Your task to perform on an android device: turn on priority inbox in the gmail app Image 0: 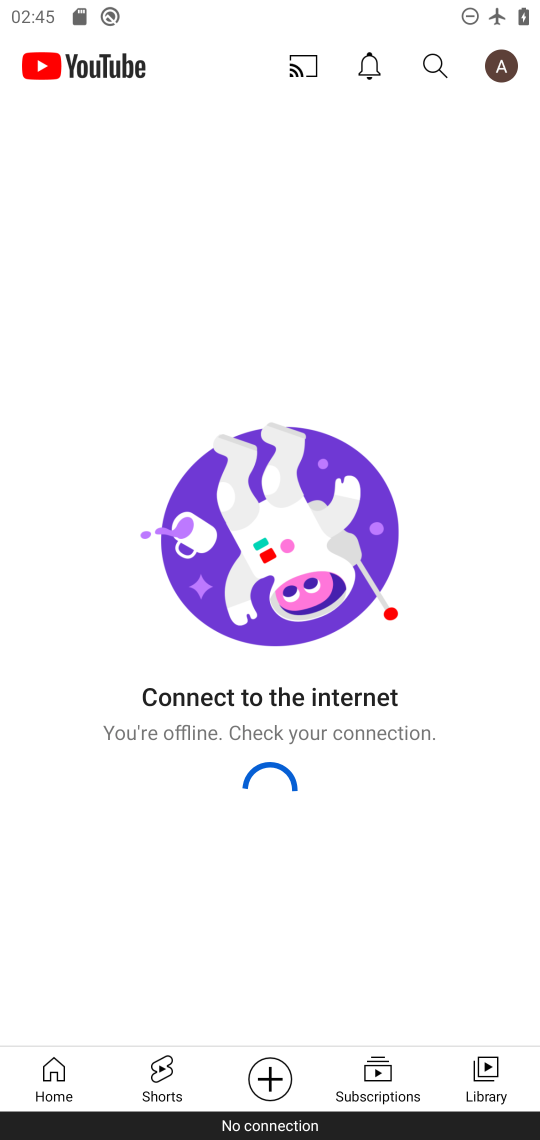
Step 0: press home button
Your task to perform on an android device: turn on priority inbox in the gmail app Image 1: 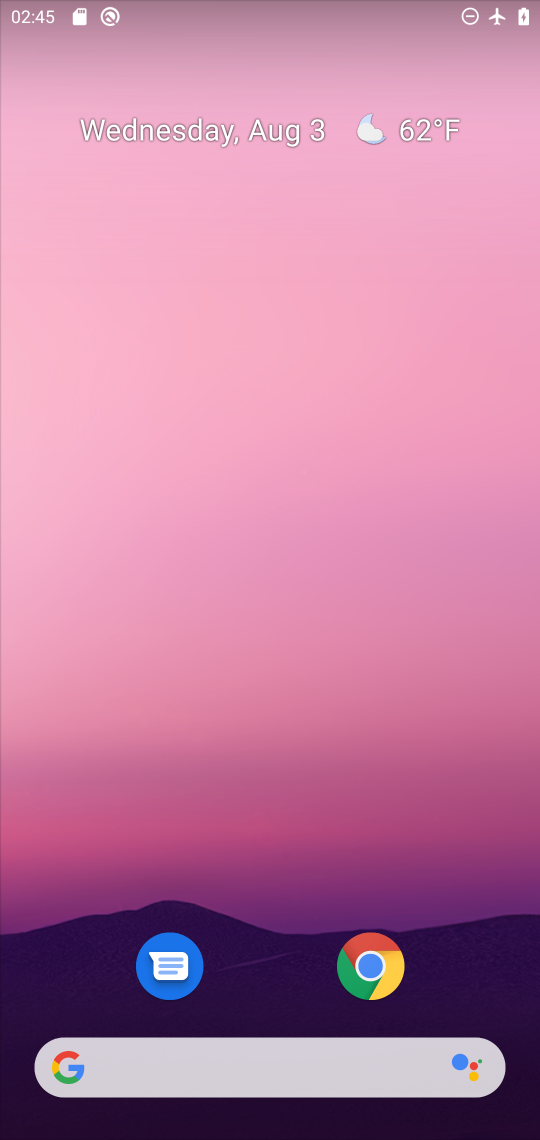
Step 1: drag from (277, 954) to (321, 241)
Your task to perform on an android device: turn on priority inbox in the gmail app Image 2: 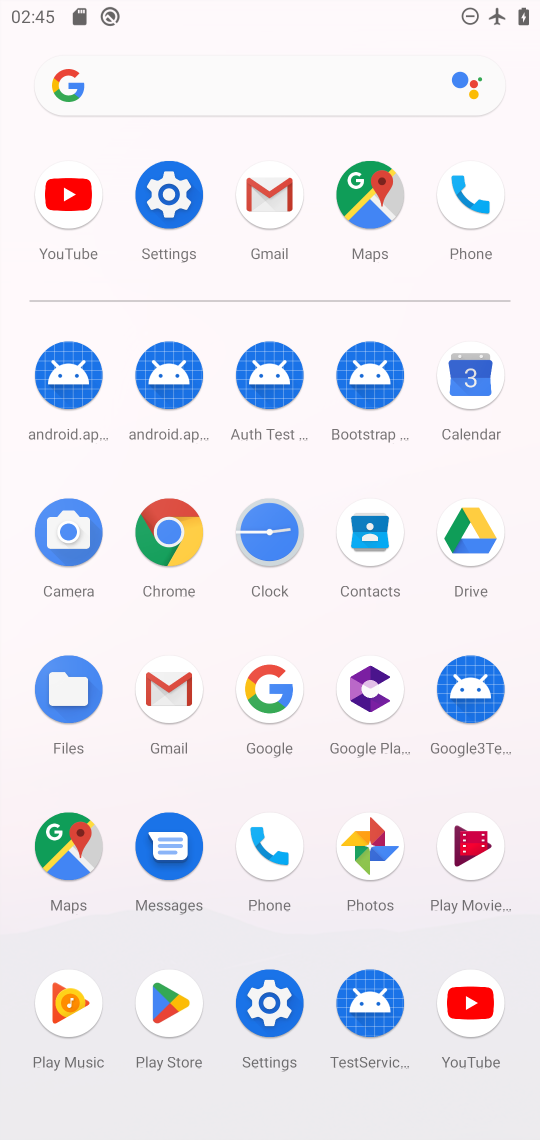
Step 2: click (271, 205)
Your task to perform on an android device: turn on priority inbox in the gmail app Image 3: 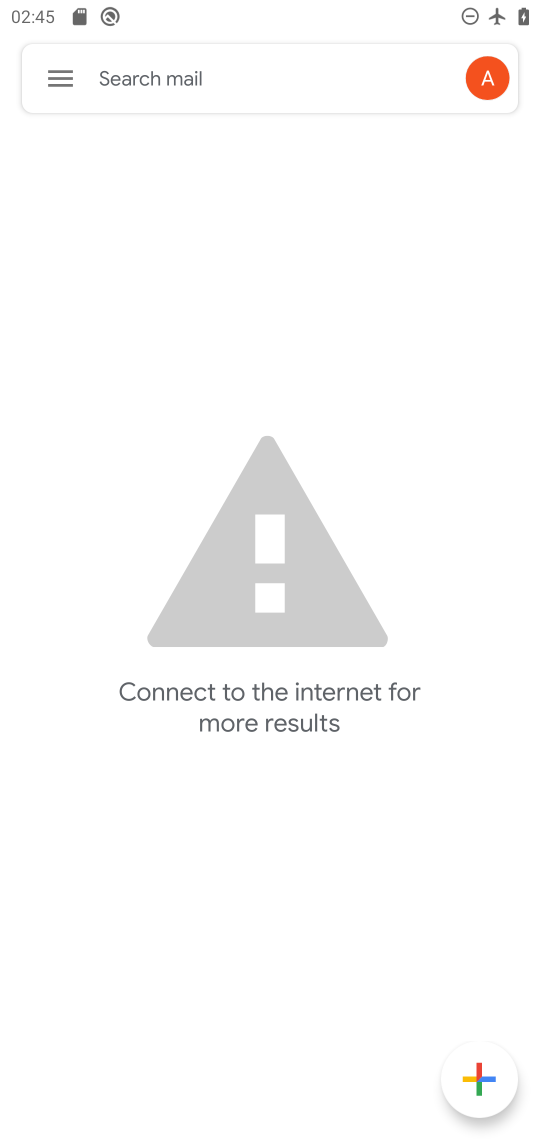
Step 3: click (41, 87)
Your task to perform on an android device: turn on priority inbox in the gmail app Image 4: 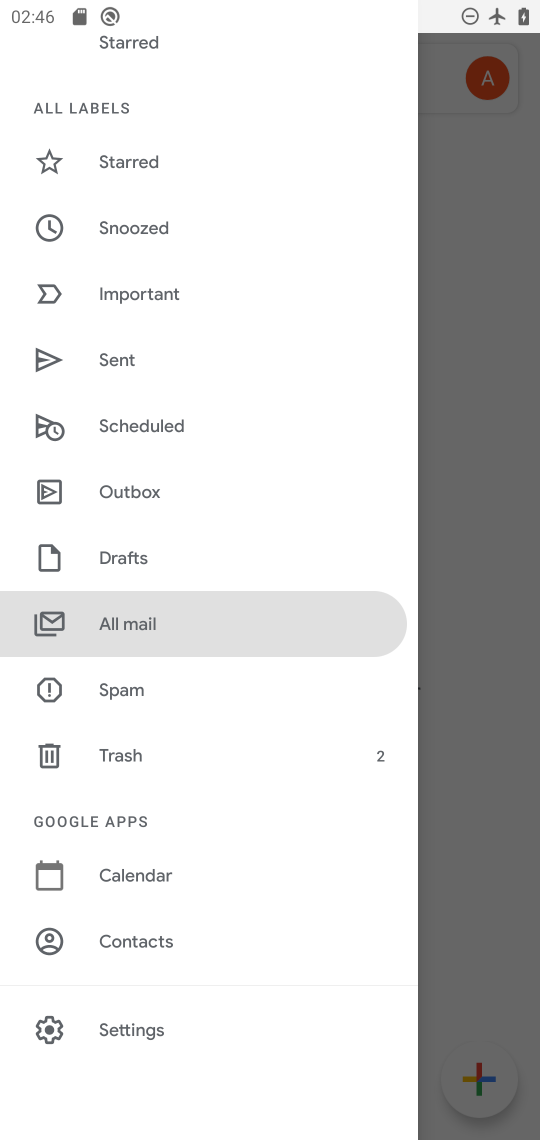
Step 4: click (151, 1017)
Your task to perform on an android device: turn on priority inbox in the gmail app Image 5: 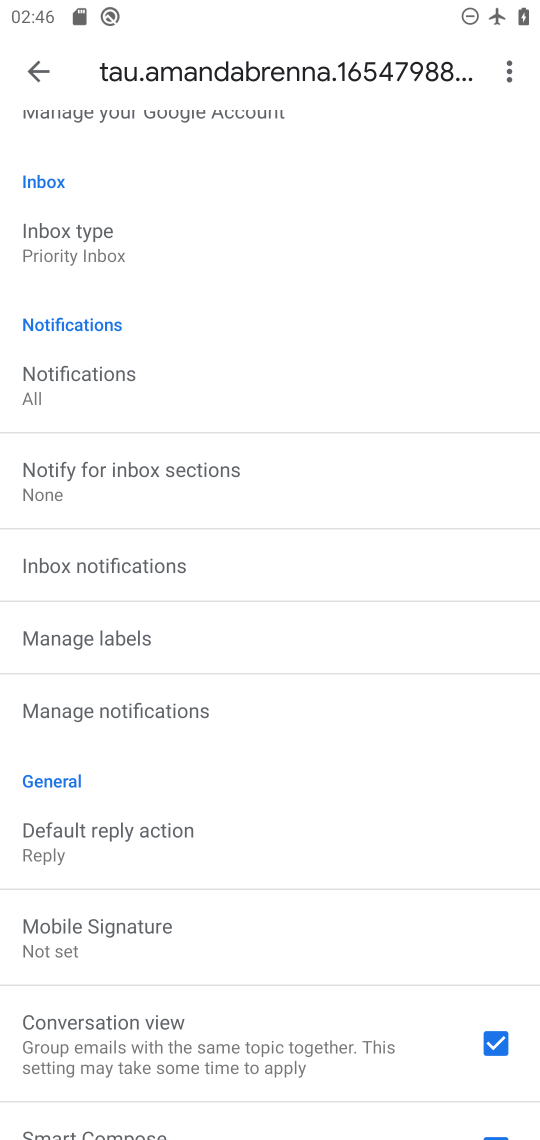
Step 5: click (161, 257)
Your task to perform on an android device: turn on priority inbox in the gmail app Image 6: 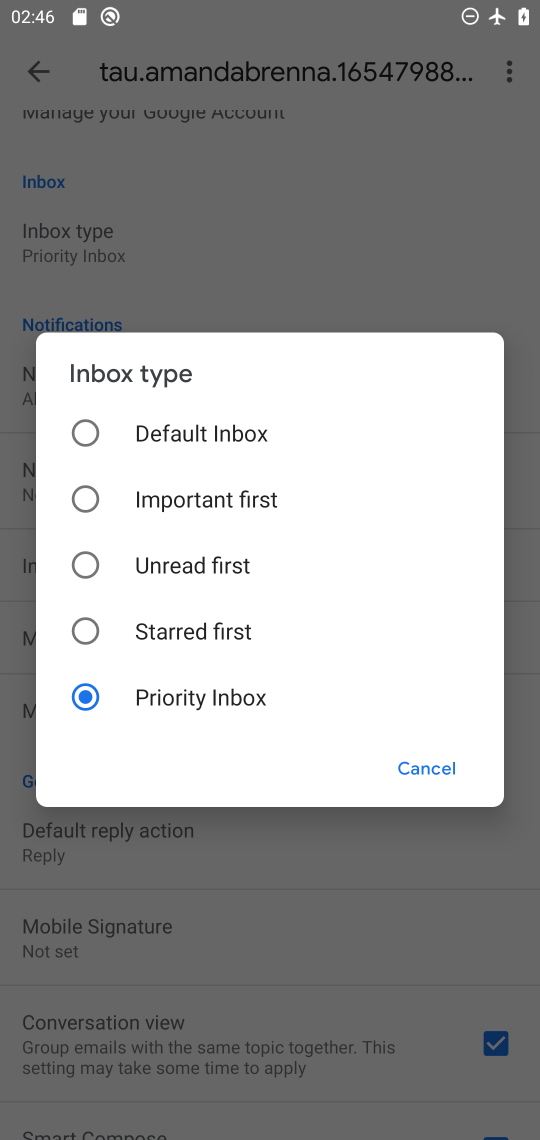
Step 6: task complete